Your task to perform on an android device: change the clock display to digital Image 0: 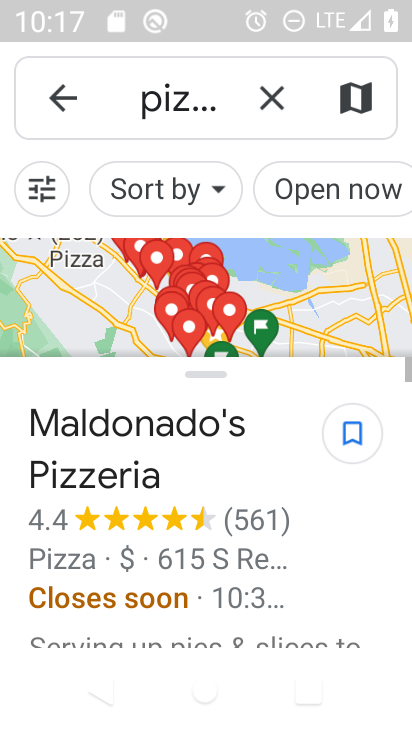
Step 0: press home button
Your task to perform on an android device: change the clock display to digital Image 1: 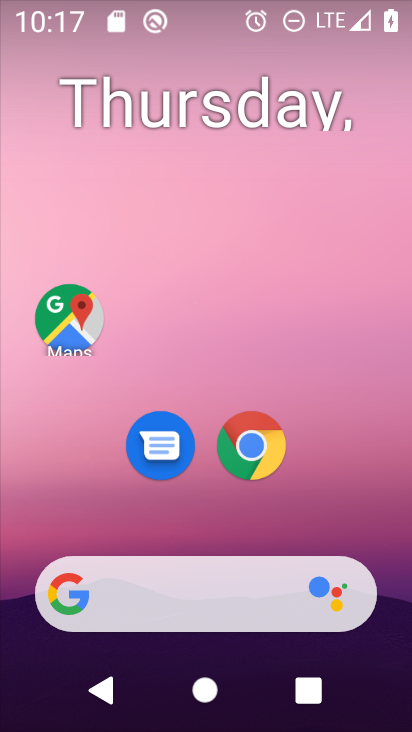
Step 1: drag from (371, 642) to (392, 574)
Your task to perform on an android device: change the clock display to digital Image 2: 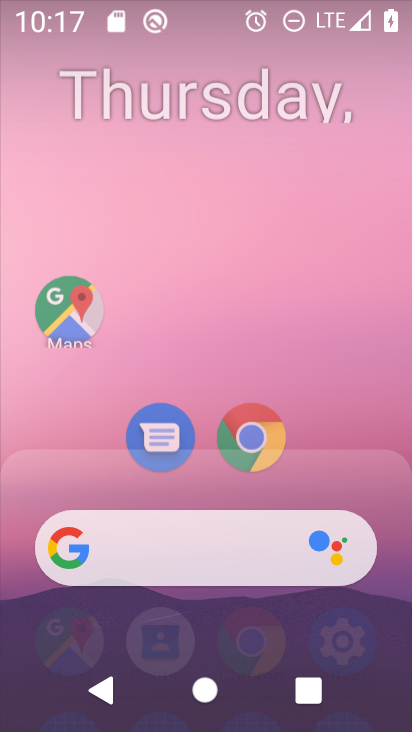
Step 2: drag from (402, 280) to (369, 113)
Your task to perform on an android device: change the clock display to digital Image 3: 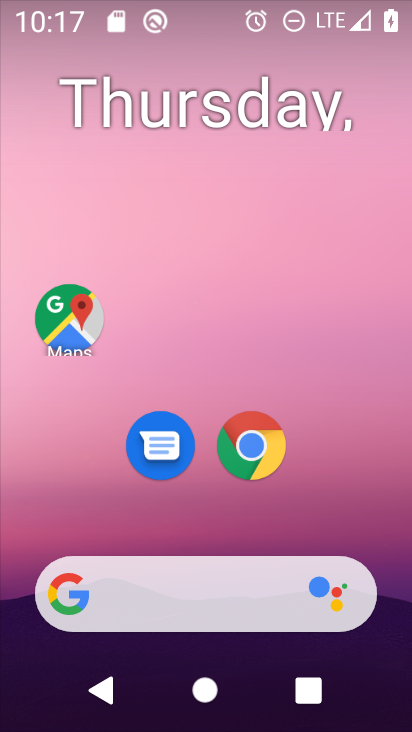
Step 3: drag from (397, 628) to (348, 36)
Your task to perform on an android device: change the clock display to digital Image 4: 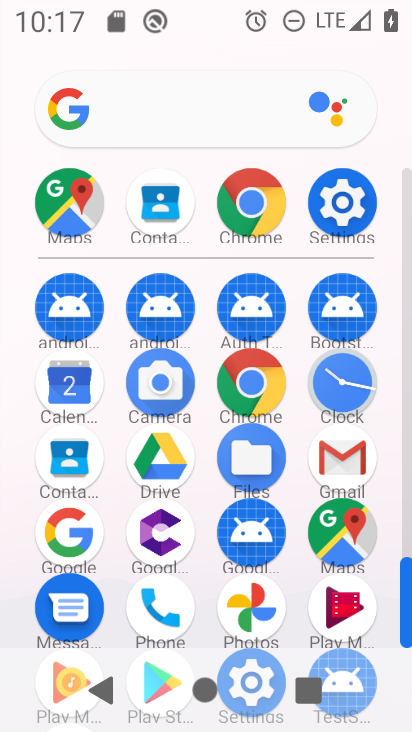
Step 4: click (349, 400)
Your task to perform on an android device: change the clock display to digital Image 5: 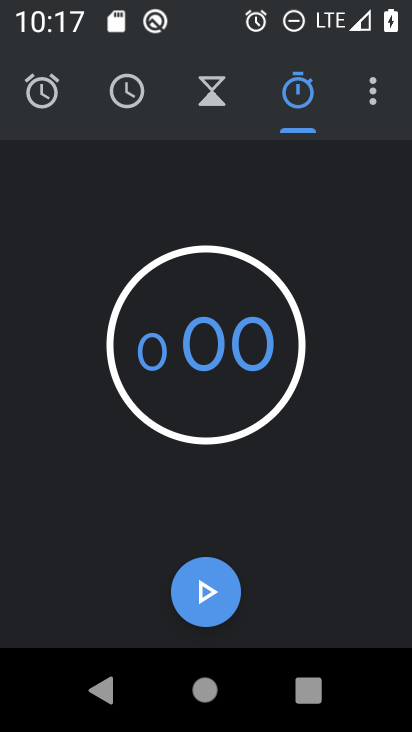
Step 5: click (375, 72)
Your task to perform on an android device: change the clock display to digital Image 6: 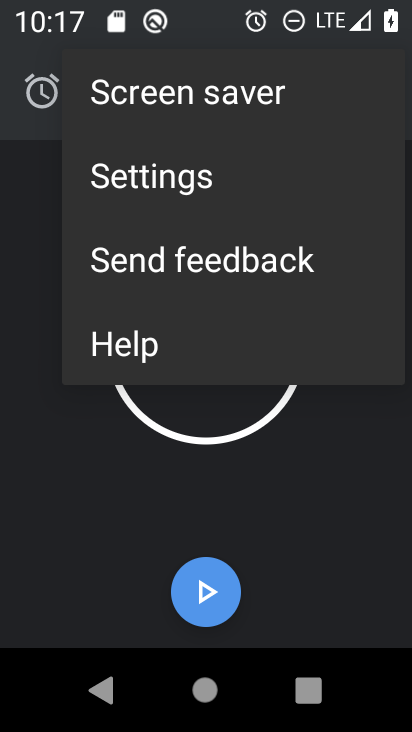
Step 6: click (241, 184)
Your task to perform on an android device: change the clock display to digital Image 7: 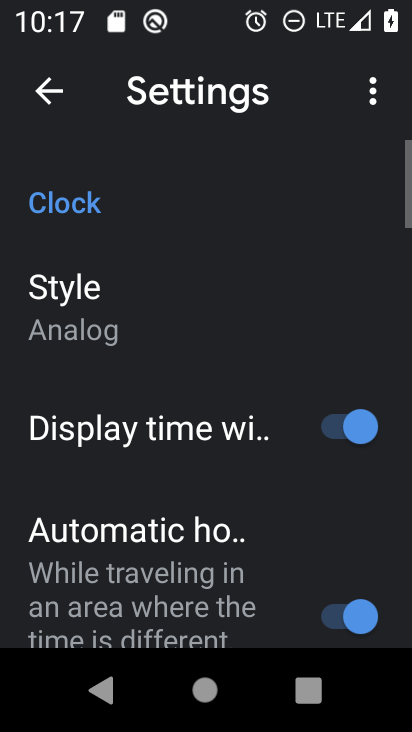
Step 7: click (193, 313)
Your task to perform on an android device: change the clock display to digital Image 8: 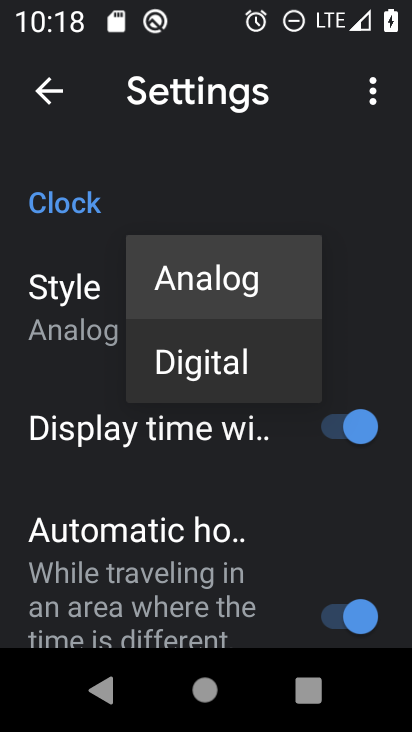
Step 8: click (219, 376)
Your task to perform on an android device: change the clock display to digital Image 9: 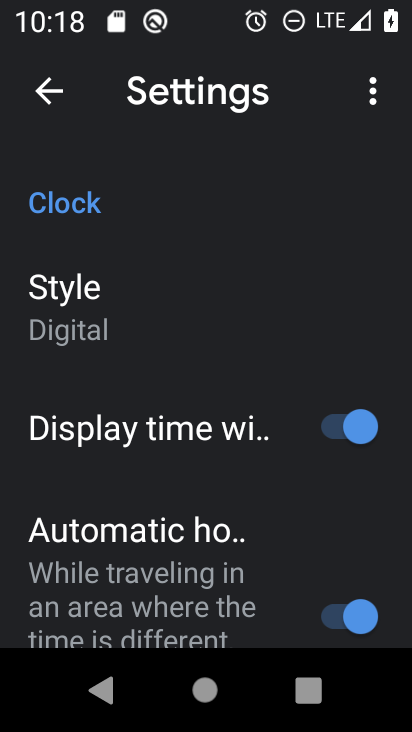
Step 9: task complete